Your task to perform on an android device: visit the assistant section in the google photos Image 0: 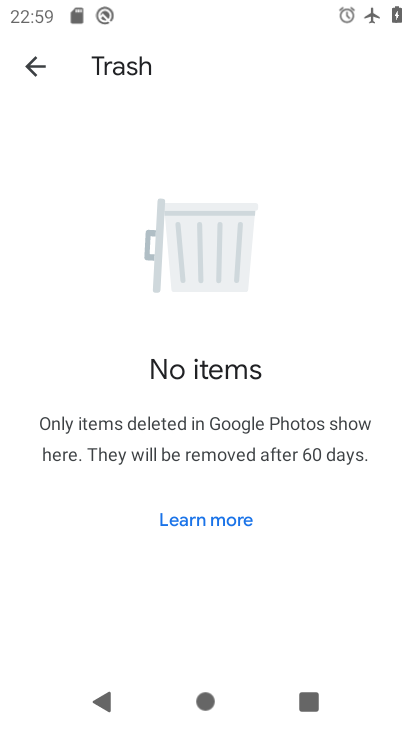
Step 0: press home button
Your task to perform on an android device: visit the assistant section in the google photos Image 1: 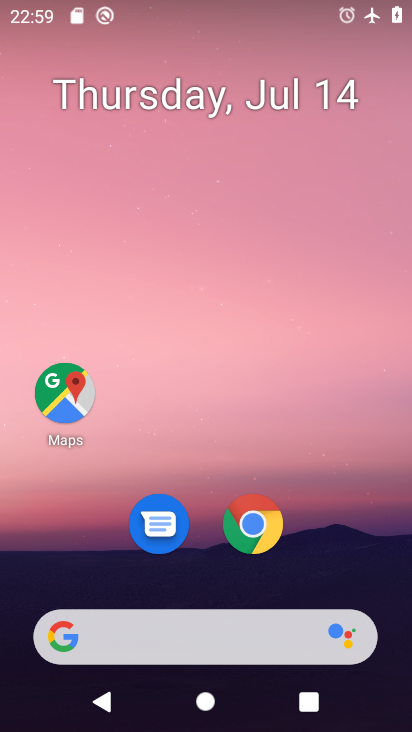
Step 1: drag from (319, 570) to (303, 31)
Your task to perform on an android device: visit the assistant section in the google photos Image 2: 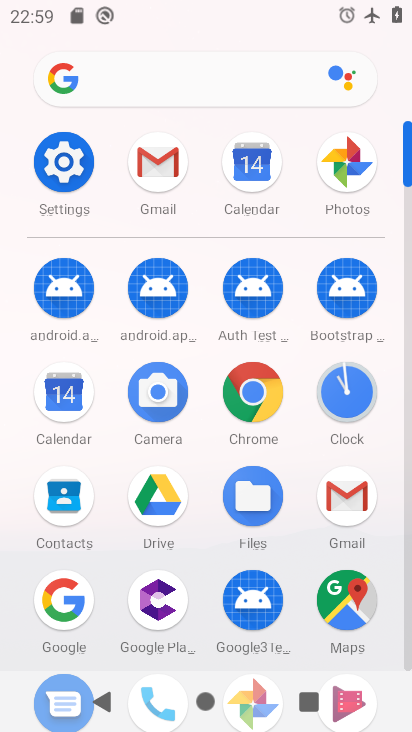
Step 2: click (350, 165)
Your task to perform on an android device: visit the assistant section in the google photos Image 3: 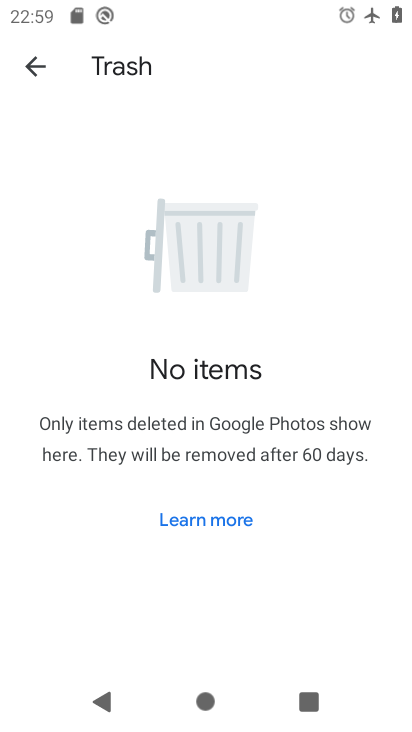
Step 3: click (31, 59)
Your task to perform on an android device: visit the assistant section in the google photos Image 4: 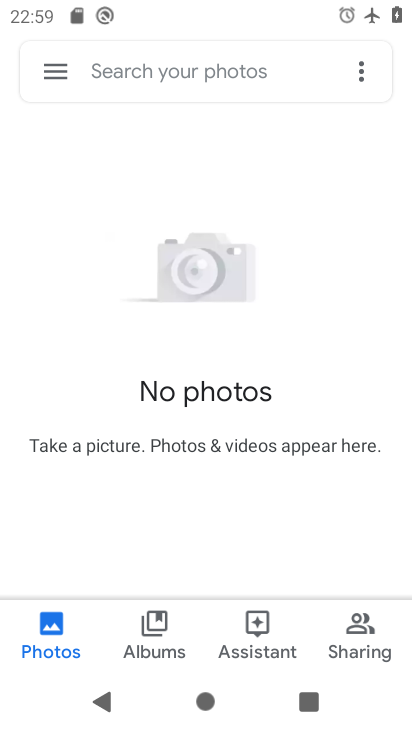
Step 4: click (281, 638)
Your task to perform on an android device: visit the assistant section in the google photos Image 5: 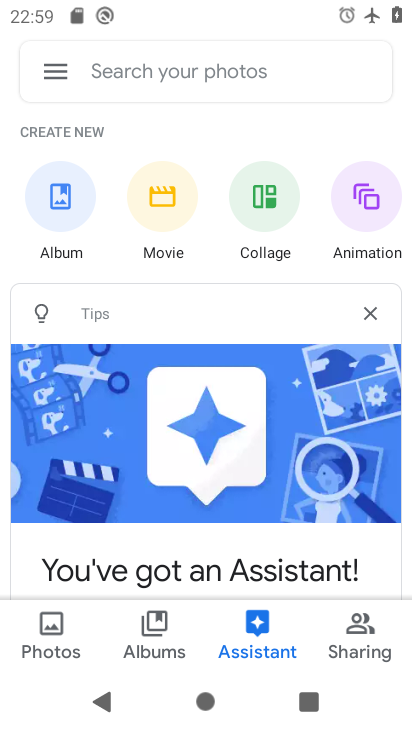
Step 5: task complete